Your task to perform on an android device: Show me popular games on the Play Store Image 0: 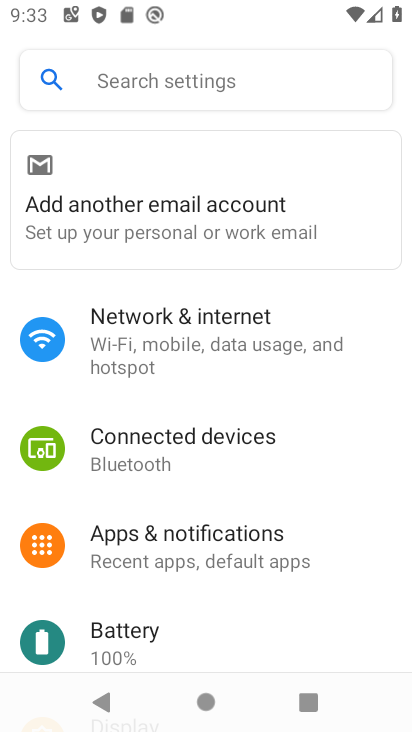
Step 0: press home button
Your task to perform on an android device: Show me popular games on the Play Store Image 1: 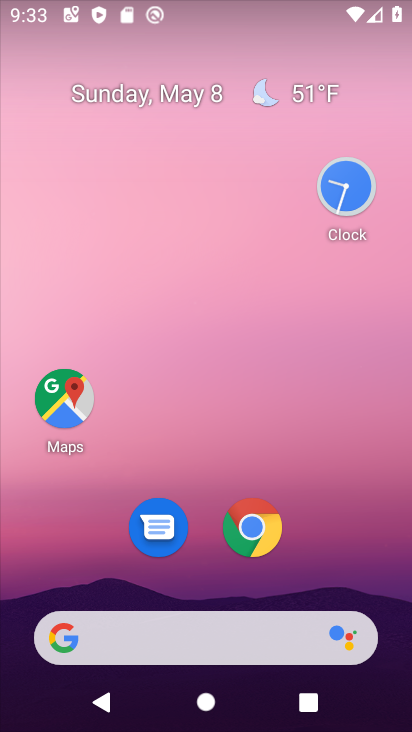
Step 1: drag from (110, 692) to (140, 203)
Your task to perform on an android device: Show me popular games on the Play Store Image 2: 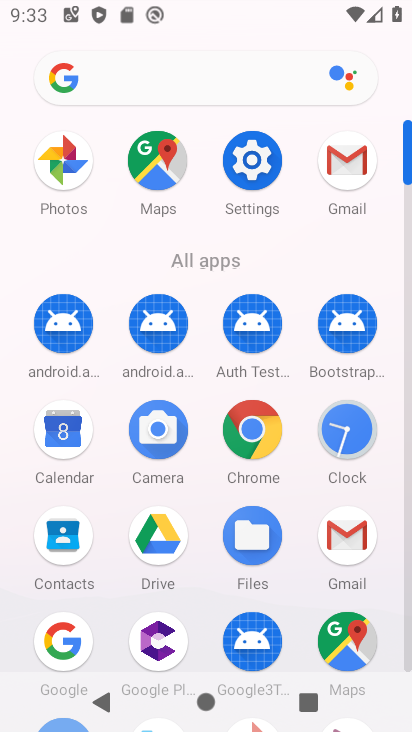
Step 2: drag from (57, 568) to (83, 306)
Your task to perform on an android device: Show me popular games on the Play Store Image 3: 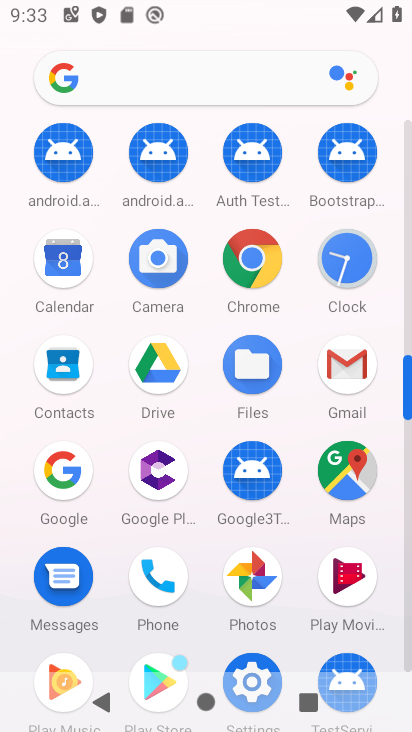
Step 3: drag from (71, 535) to (163, 199)
Your task to perform on an android device: Show me popular games on the Play Store Image 4: 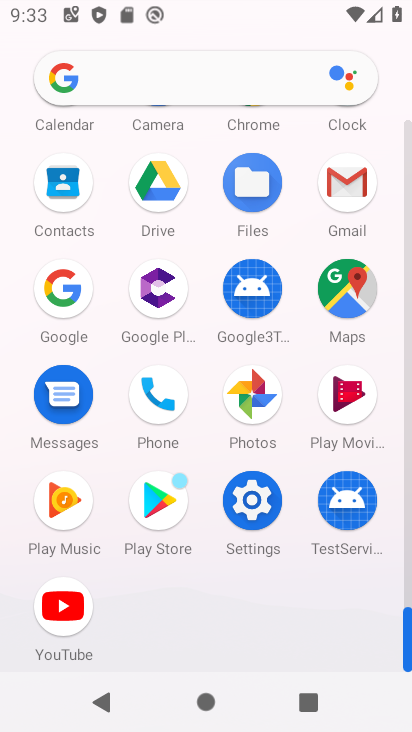
Step 4: click (165, 517)
Your task to perform on an android device: Show me popular games on the Play Store Image 5: 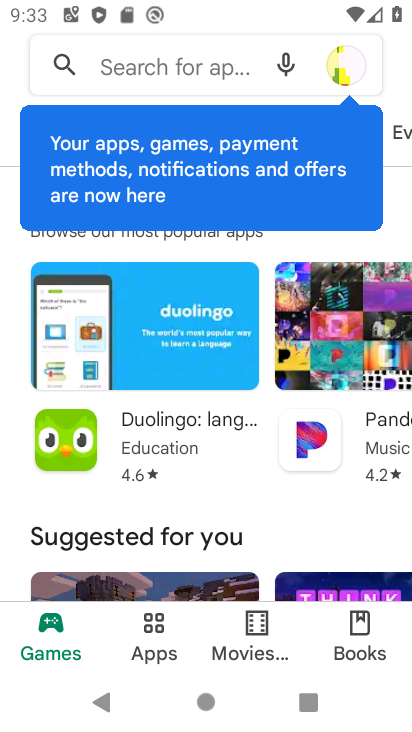
Step 5: click (116, 60)
Your task to perform on an android device: Show me popular games on the Play Store Image 6: 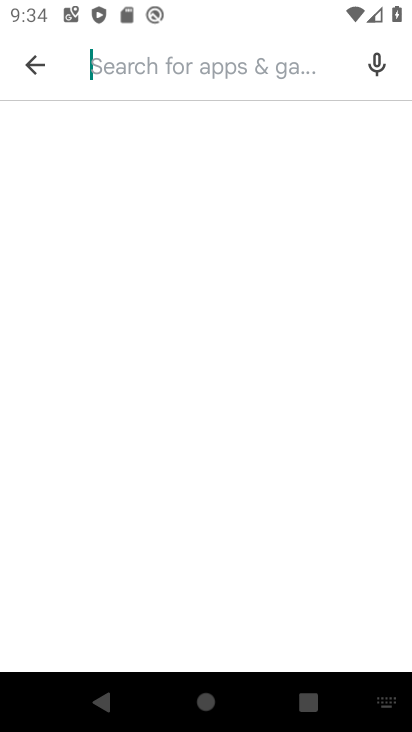
Step 6: type "popular games"
Your task to perform on an android device: Show me popular games on the Play Store Image 7: 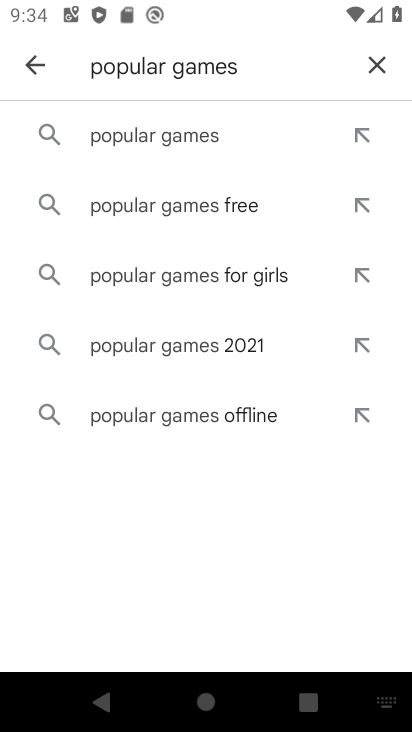
Step 7: click (266, 132)
Your task to perform on an android device: Show me popular games on the Play Store Image 8: 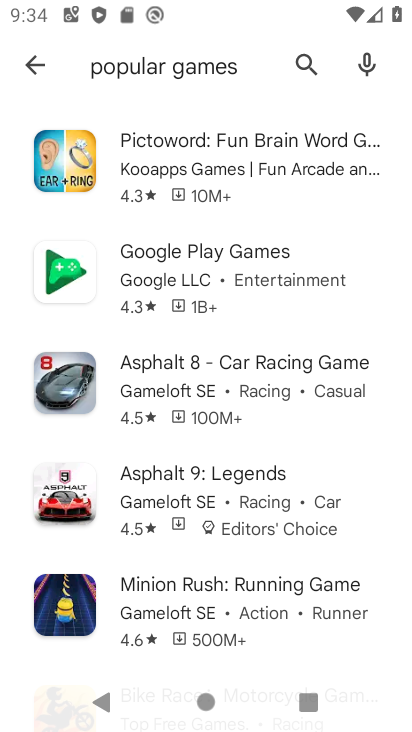
Step 8: task complete